Your task to perform on an android device: Open privacy settings Image 0: 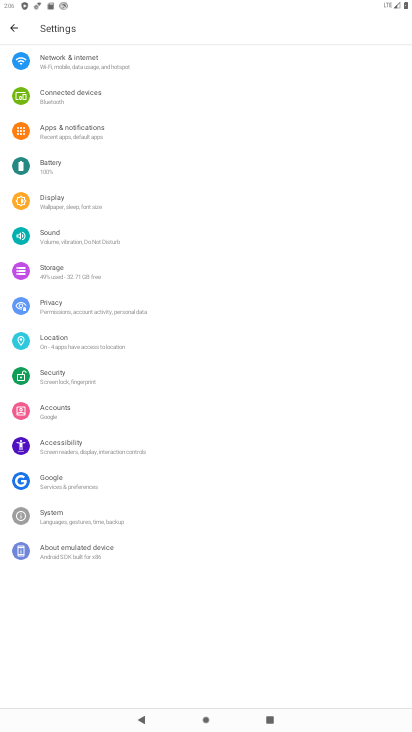
Step 0: click (57, 312)
Your task to perform on an android device: Open privacy settings Image 1: 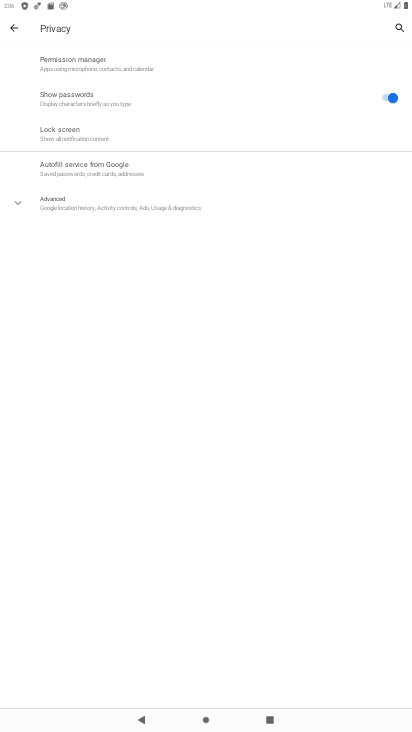
Step 1: task complete